Your task to perform on an android device: Go to settings Image 0: 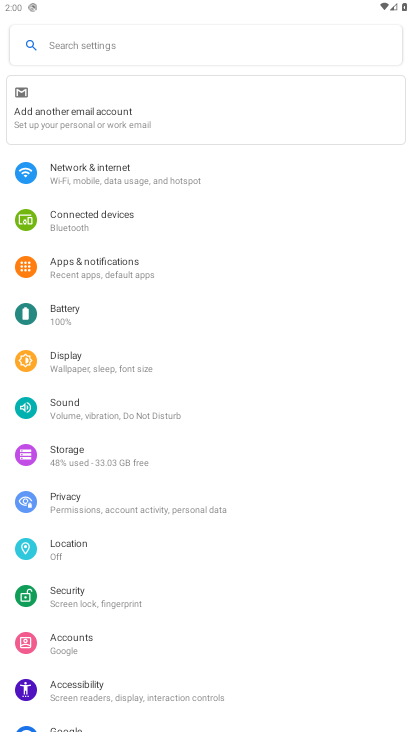
Step 0: task complete